Your task to perform on an android device: open app "AliExpress" (install if not already installed) and enter user name: "orangutan@inbox.com" and password: "Lyons" Image 0: 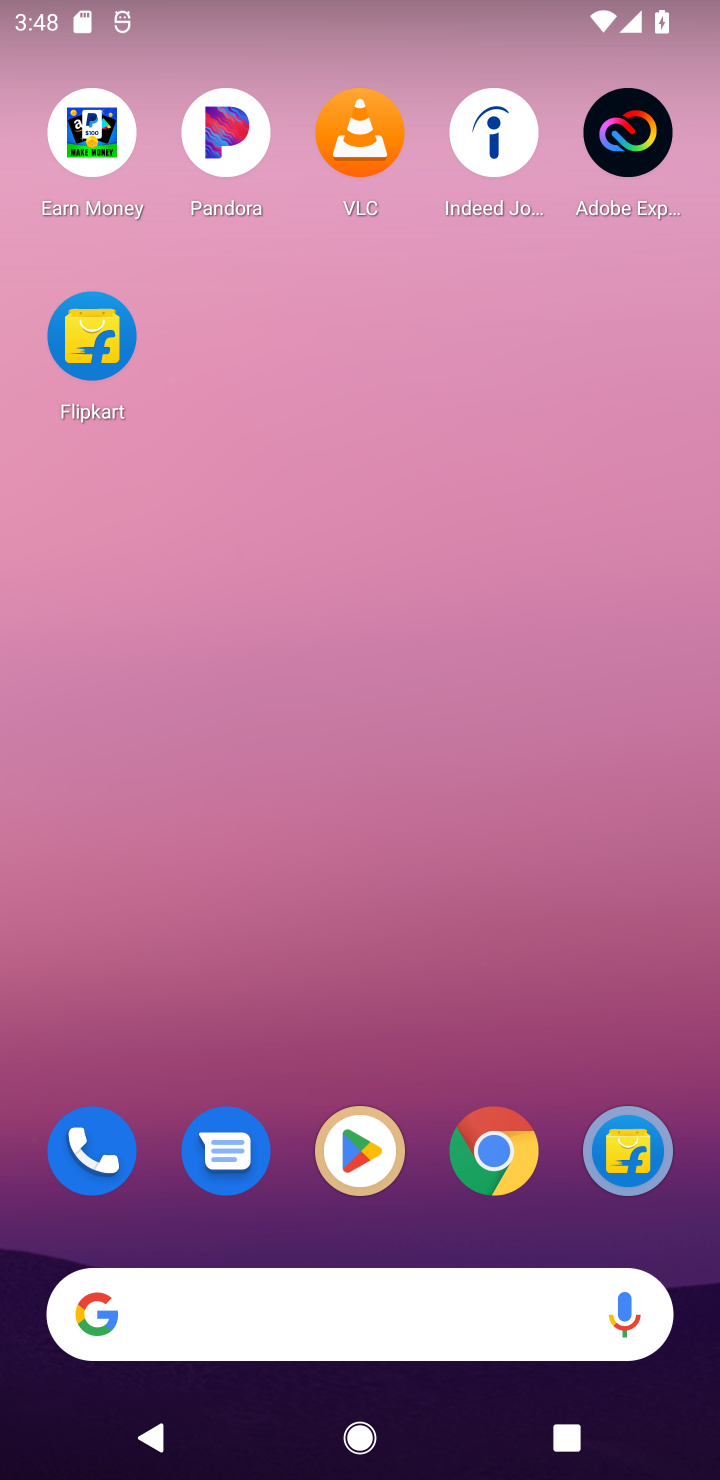
Step 0: click (338, 1152)
Your task to perform on an android device: open app "AliExpress" (install if not already installed) and enter user name: "orangutan@inbox.com" and password: "Lyons" Image 1: 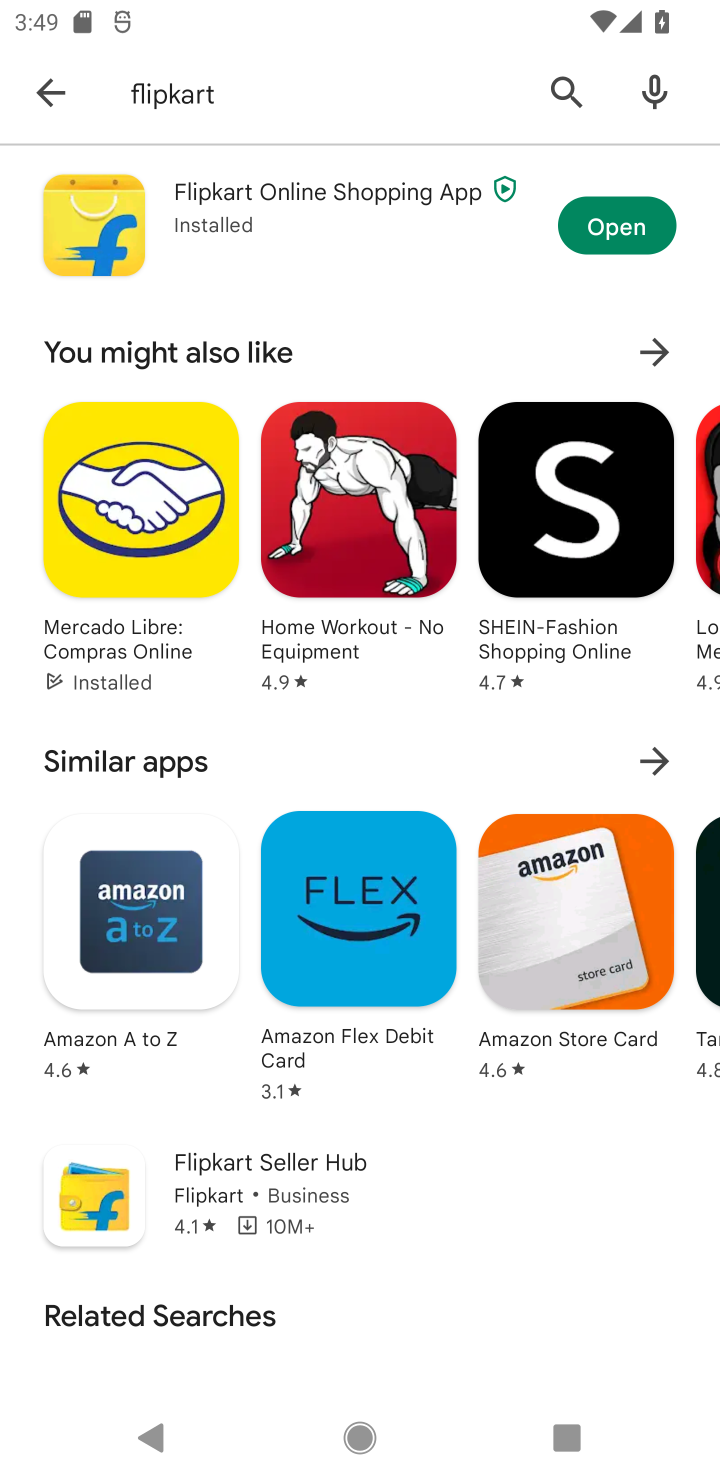
Step 1: click (548, 107)
Your task to perform on an android device: open app "AliExpress" (install if not already installed) and enter user name: "orangutan@inbox.com" and password: "Lyons" Image 2: 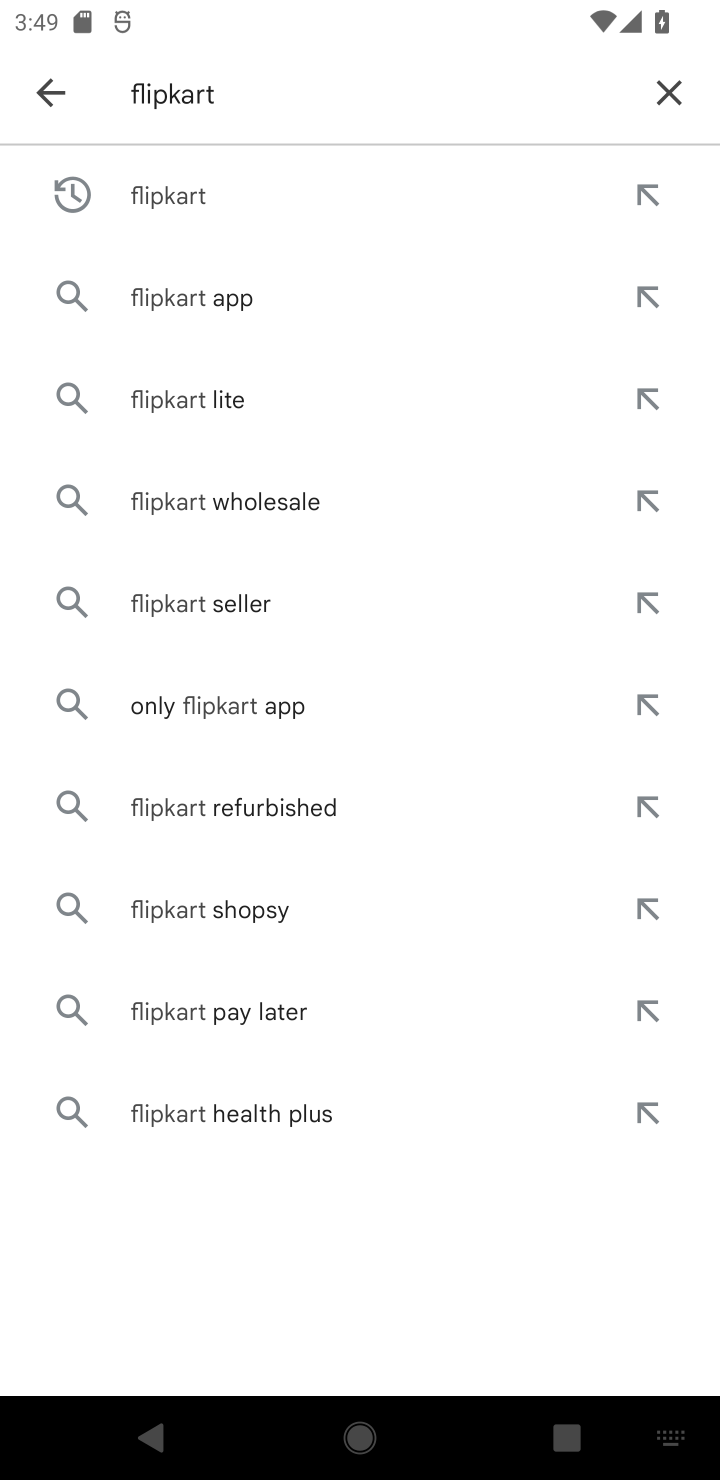
Step 2: click (652, 121)
Your task to perform on an android device: open app "AliExpress" (install if not already installed) and enter user name: "orangutan@inbox.com" and password: "Lyons" Image 3: 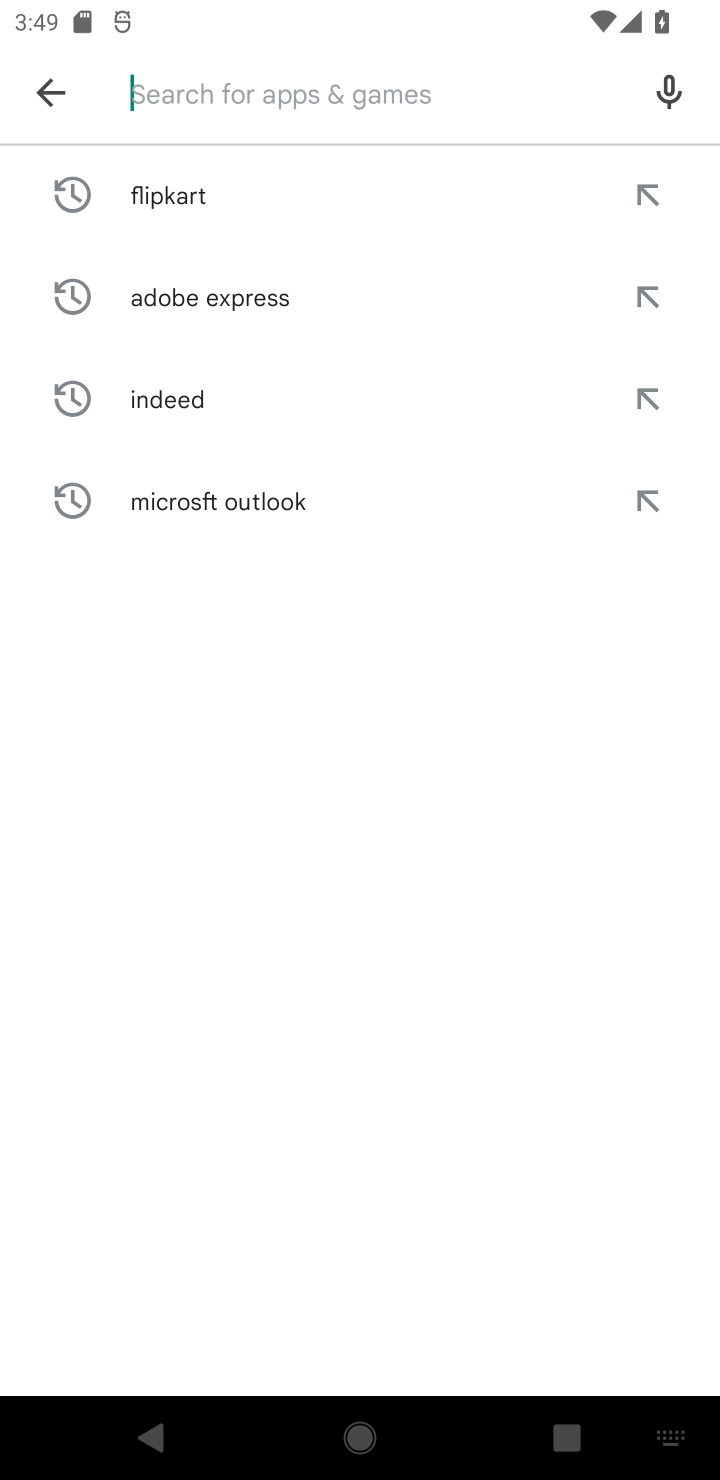
Step 3: type "aliexpess"
Your task to perform on an android device: open app "AliExpress" (install if not already installed) and enter user name: "orangutan@inbox.com" and password: "Lyons" Image 4: 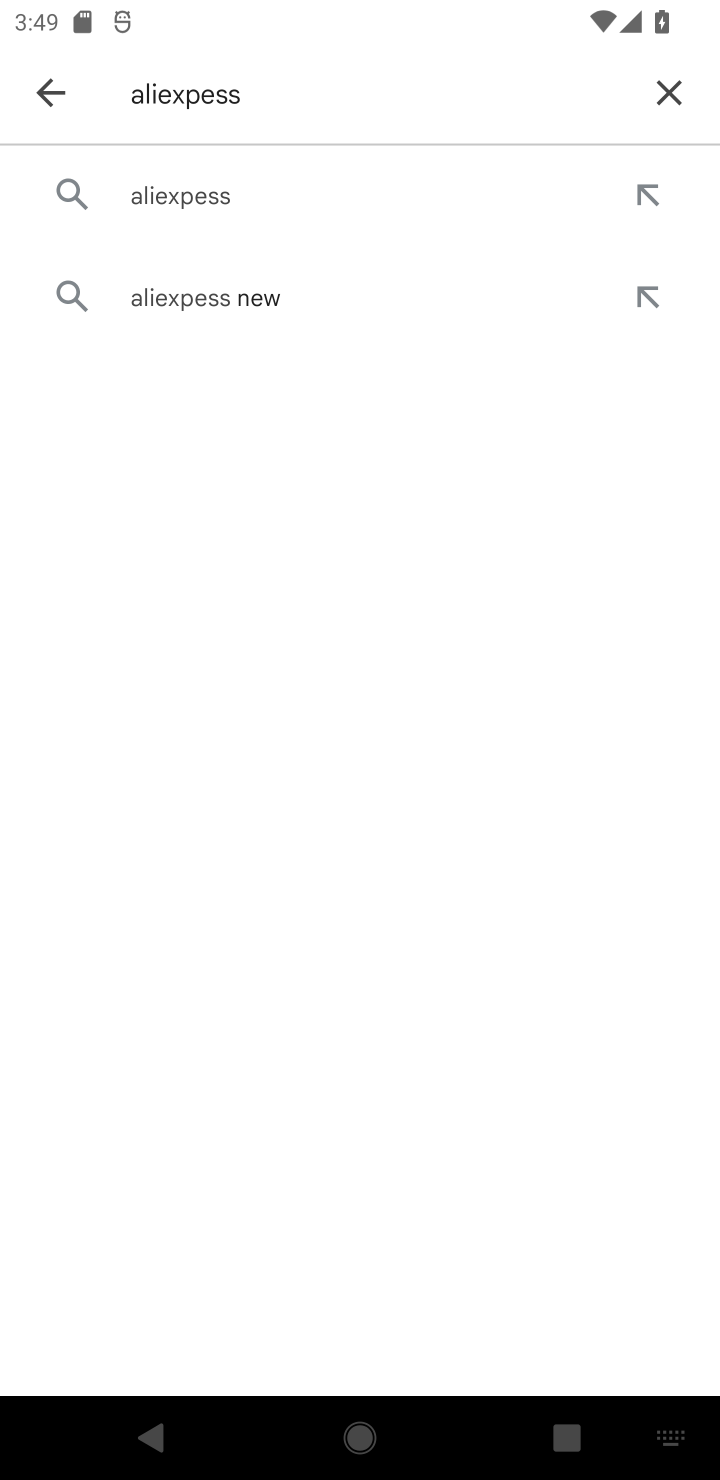
Step 4: click (338, 204)
Your task to perform on an android device: open app "AliExpress" (install if not already installed) and enter user name: "orangutan@inbox.com" and password: "Lyons" Image 5: 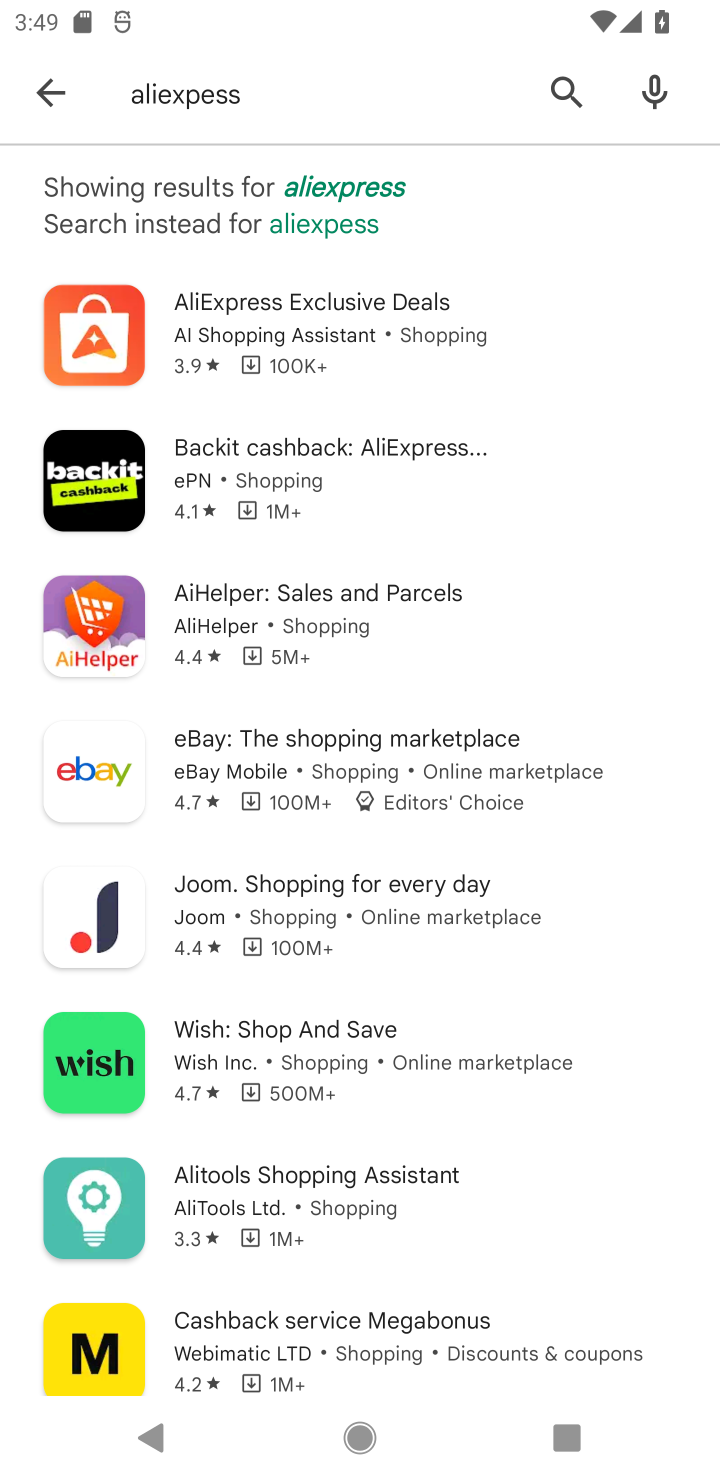
Step 5: click (412, 315)
Your task to perform on an android device: open app "AliExpress" (install if not already installed) and enter user name: "orangutan@inbox.com" and password: "Lyons" Image 6: 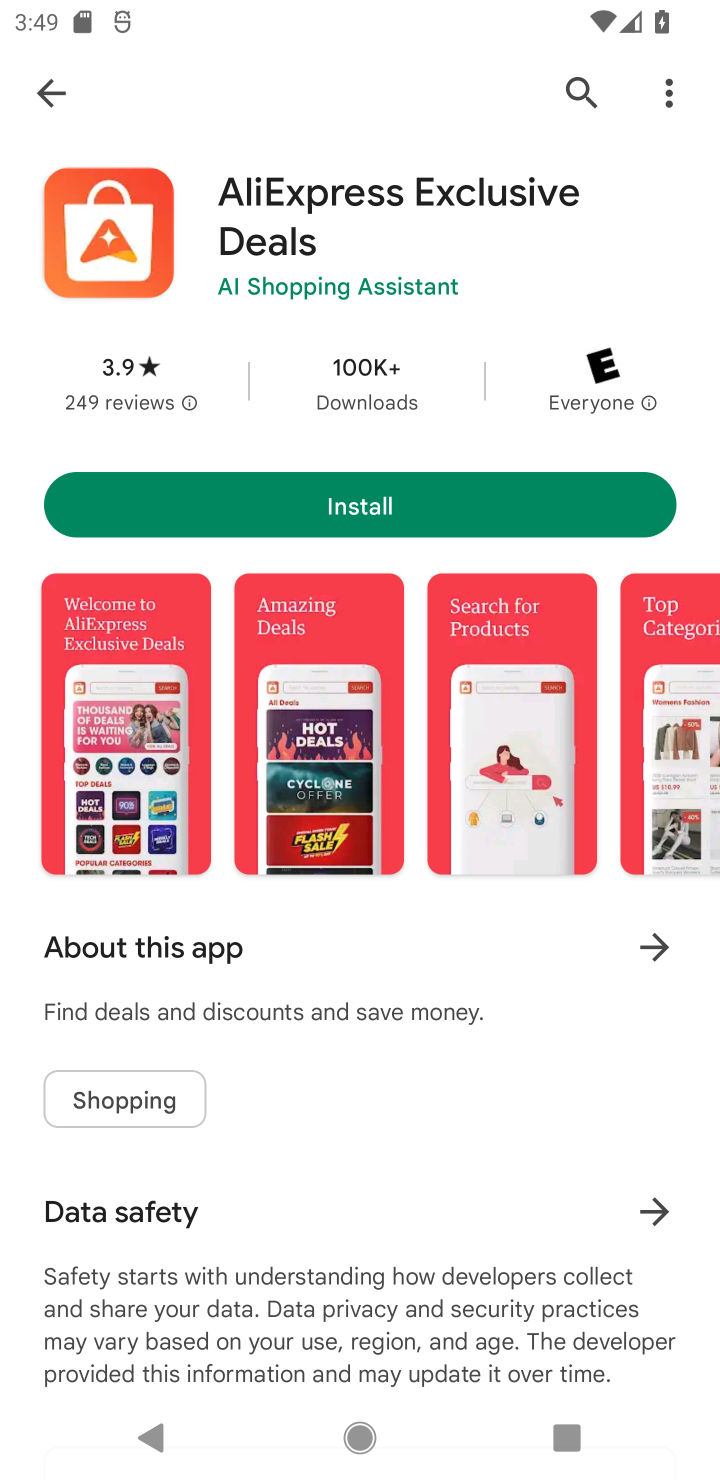
Step 6: click (555, 484)
Your task to perform on an android device: open app "AliExpress" (install if not already installed) and enter user name: "orangutan@inbox.com" and password: "Lyons" Image 7: 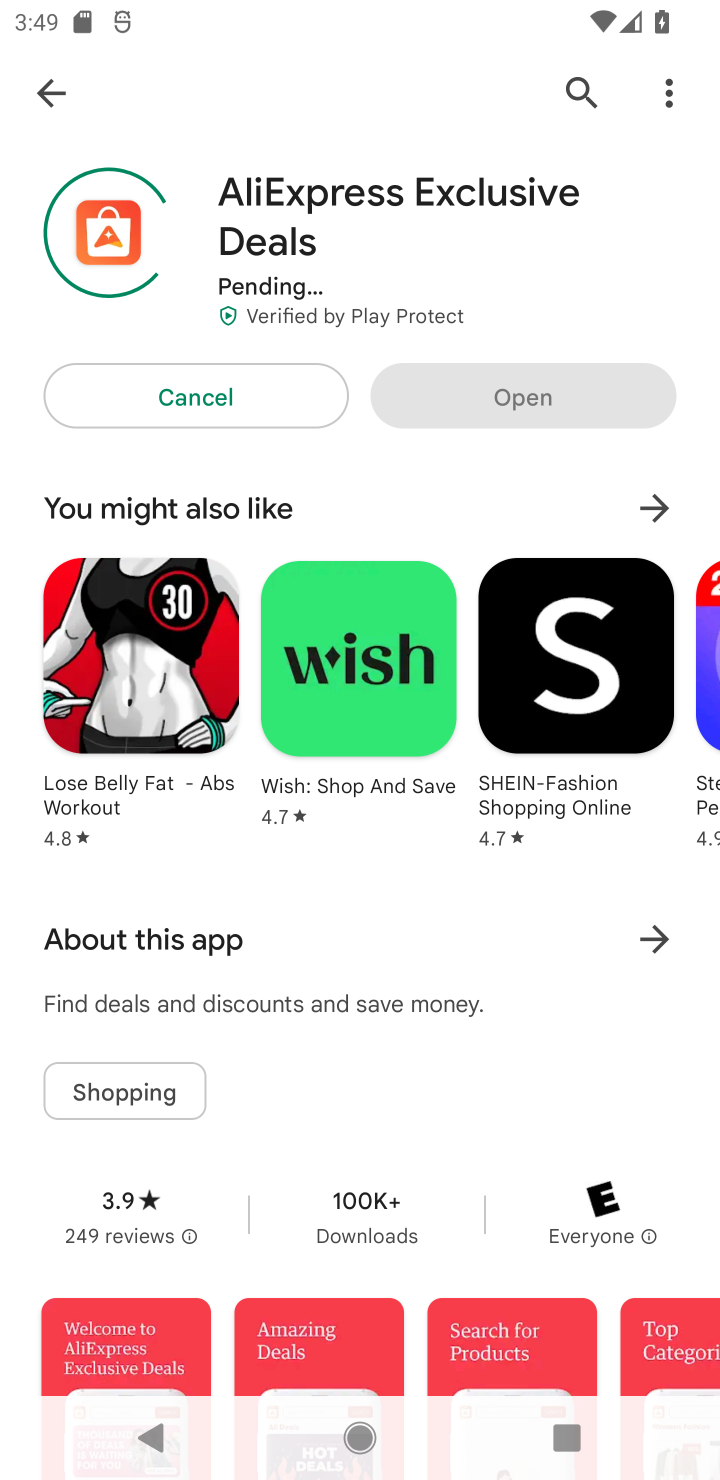
Step 7: task complete